Your task to perform on an android device: View the shopping cart on costco. Search for "dell xps" on costco, select the first entry, add it to the cart, then select checkout. Image 0: 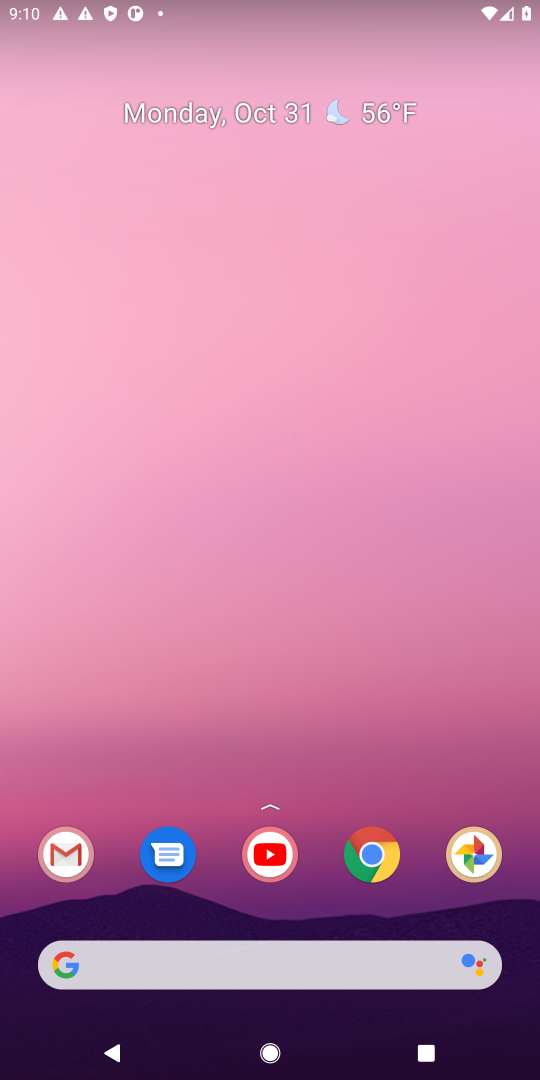
Step 0: click (315, 957)
Your task to perform on an android device: View the shopping cart on costco. Search for "dell xps" on costco, select the first entry, add it to the cart, then select checkout. Image 1: 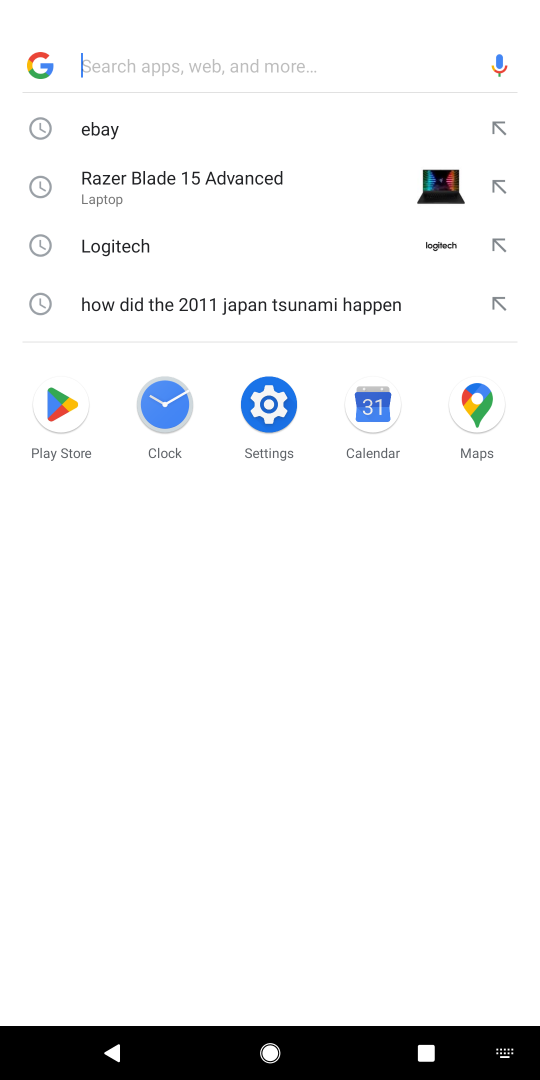
Step 1: type "costco"
Your task to perform on an android device: View the shopping cart on costco. Search for "dell xps" on costco, select the first entry, add it to the cart, then select checkout. Image 2: 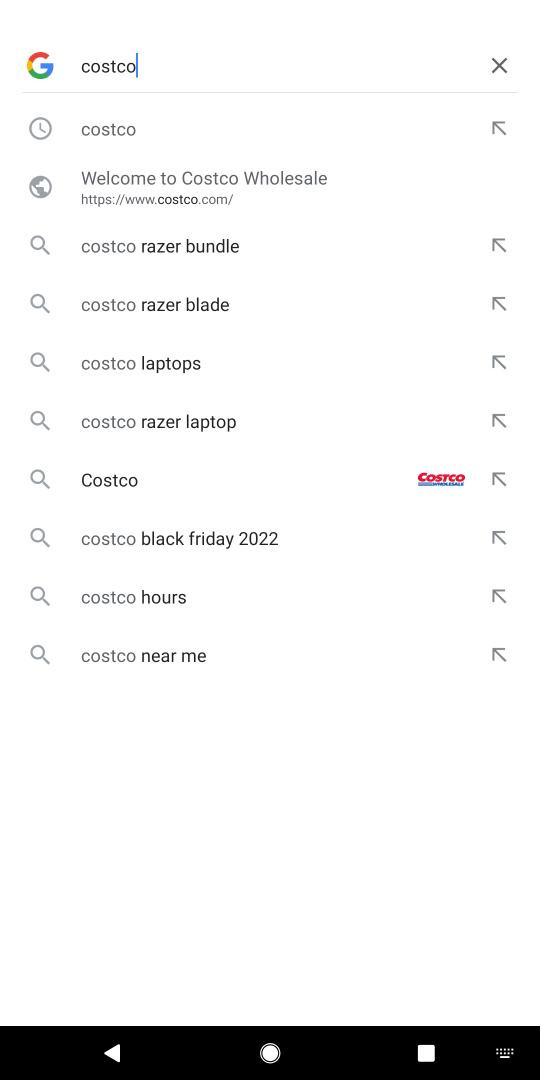
Step 2: click (112, 141)
Your task to perform on an android device: View the shopping cart on costco. Search for "dell xps" on costco, select the first entry, add it to the cart, then select checkout. Image 3: 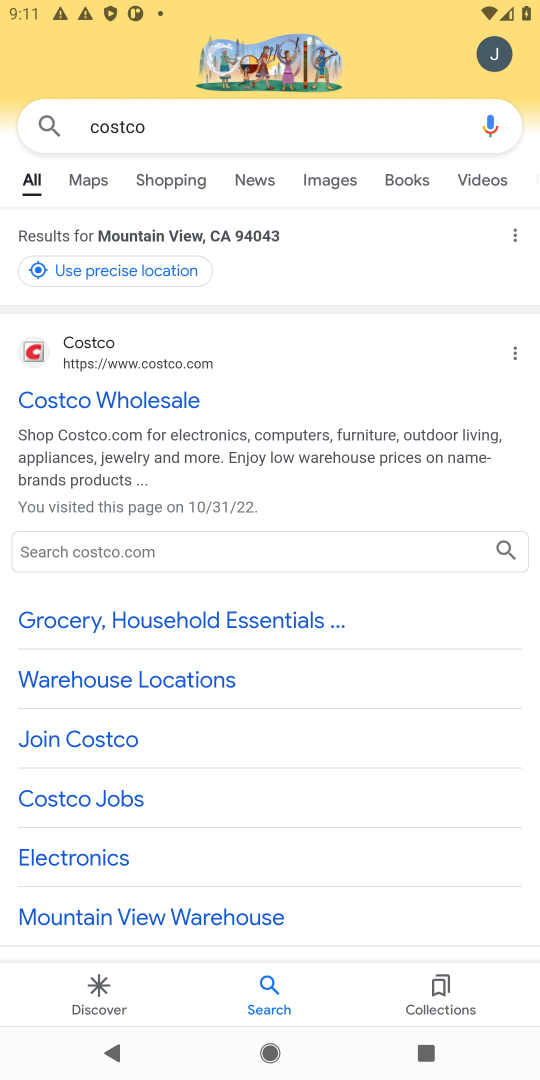
Step 3: click (115, 413)
Your task to perform on an android device: View the shopping cart on costco. Search for "dell xps" on costco, select the first entry, add it to the cart, then select checkout. Image 4: 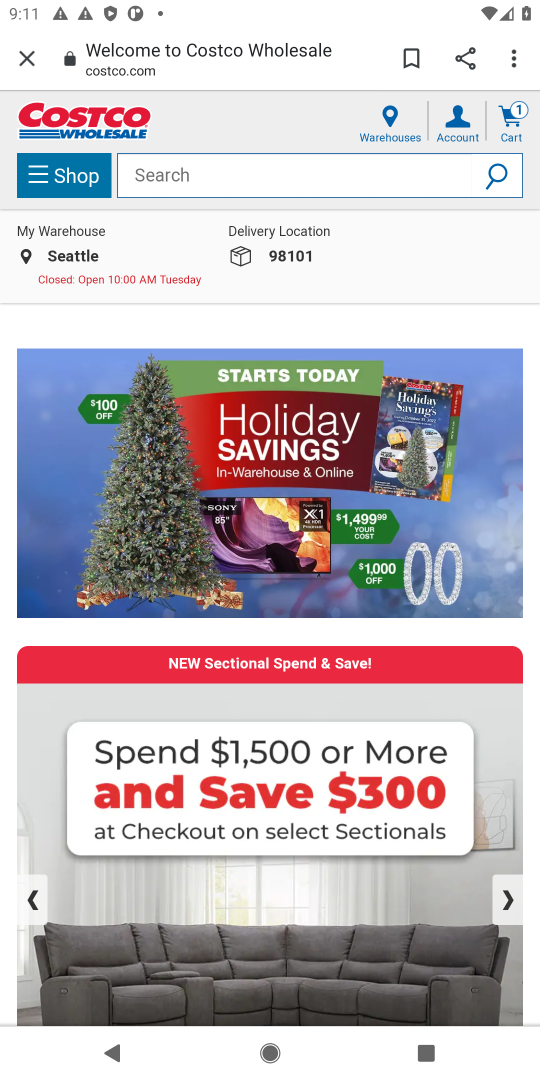
Step 4: click (413, 186)
Your task to perform on an android device: View the shopping cart on costco. Search for "dell xps" on costco, select the first entry, add it to the cart, then select checkout. Image 5: 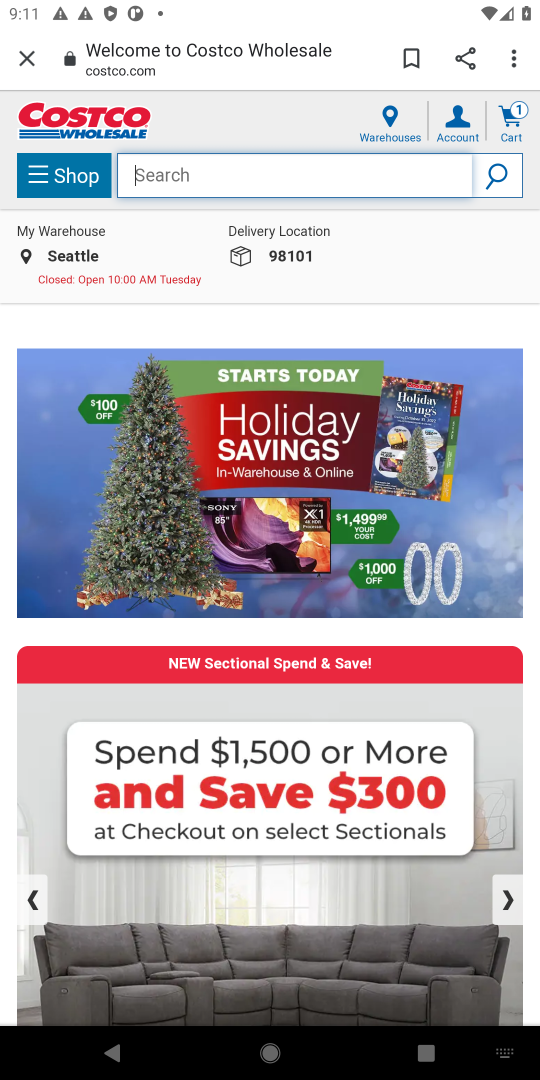
Step 5: type "dell xps"
Your task to perform on an android device: View the shopping cart on costco. Search for "dell xps" on costco, select the first entry, add it to the cart, then select checkout. Image 6: 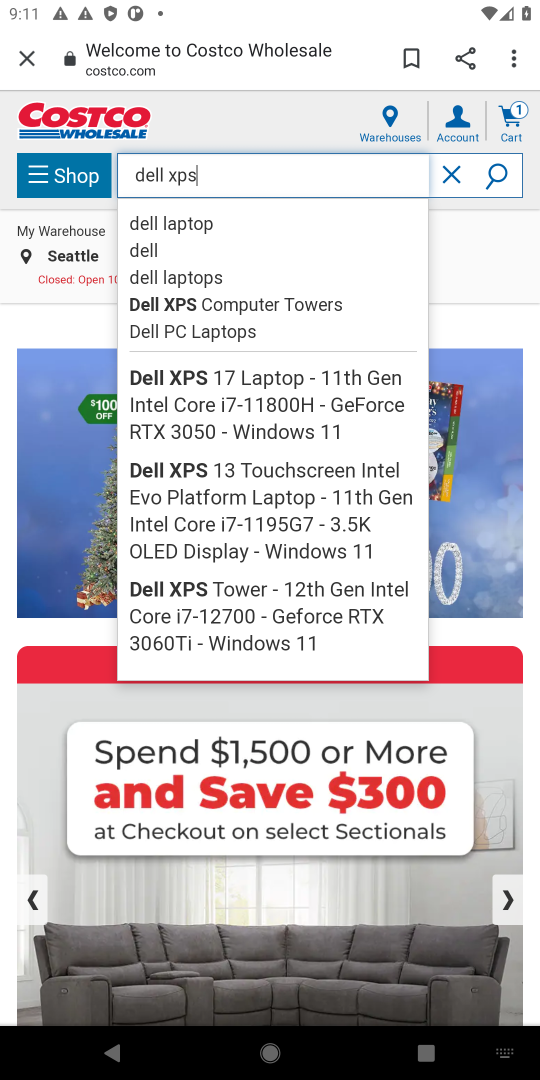
Step 6: click (207, 305)
Your task to perform on an android device: View the shopping cart on costco. Search for "dell xps" on costco, select the first entry, add it to the cart, then select checkout. Image 7: 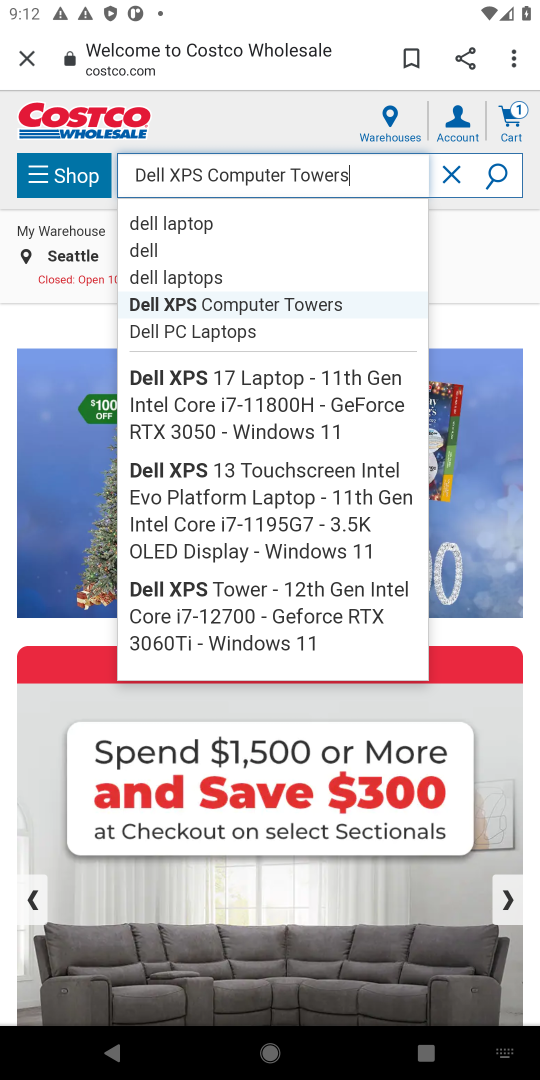
Step 7: click (207, 302)
Your task to perform on an android device: View the shopping cart on costco. Search for "dell xps" on costco, select the first entry, add it to the cart, then select checkout. Image 8: 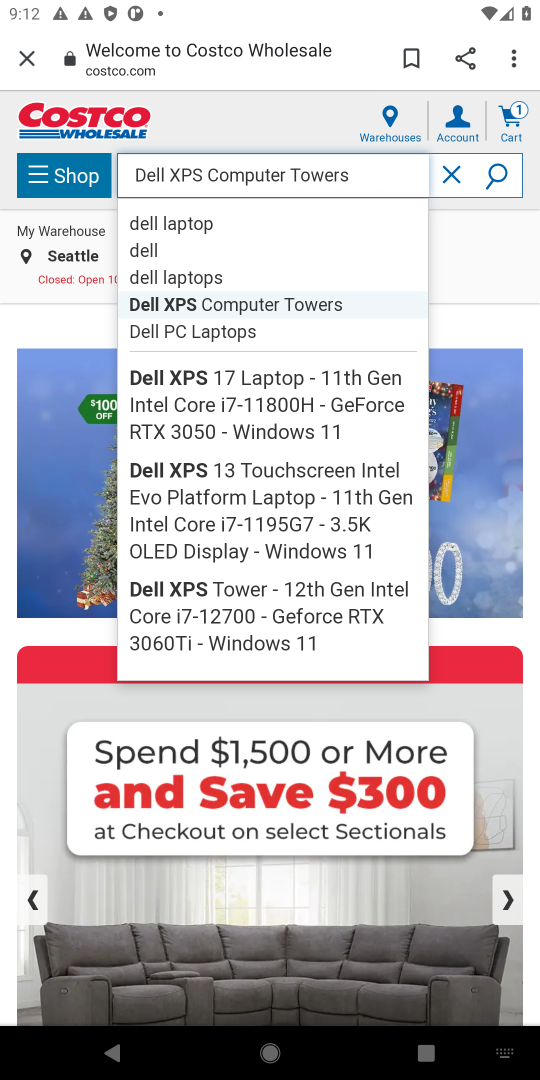
Step 8: task complete